Your task to perform on an android device: toggle pop-ups in chrome Image 0: 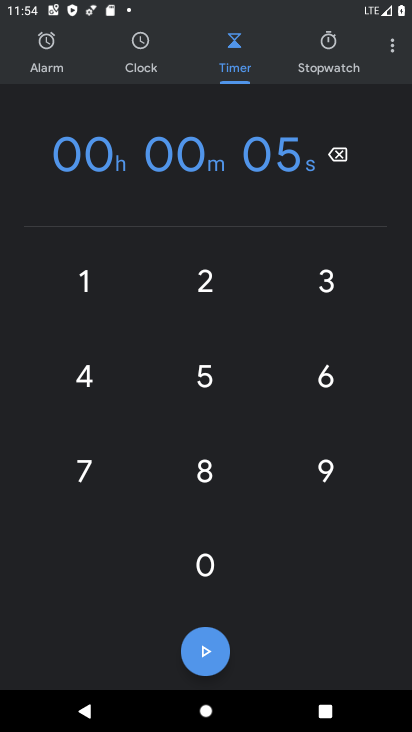
Step 0: press home button
Your task to perform on an android device: toggle pop-ups in chrome Image 1: 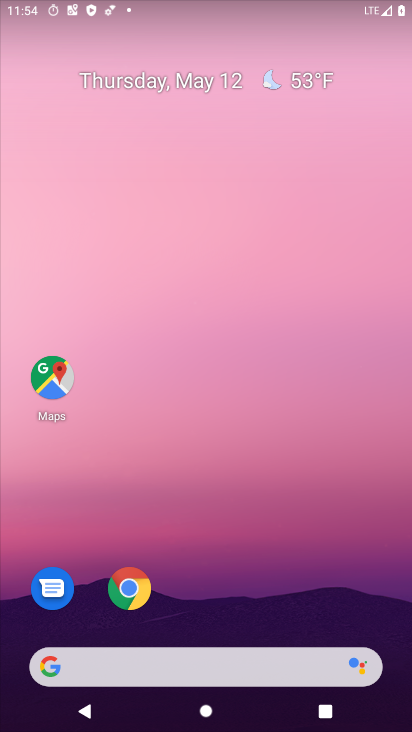
Step 1: click (120, 596)
Your task to perform on an android device: toggle pop-ups in chrome Image 2: 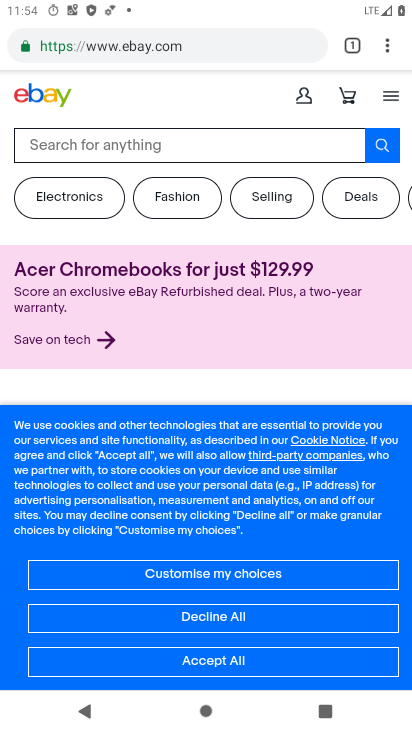
Step 2: click (390, 47)
Your task to perform on an android device: toggle pop-ups in chrome Image 3: 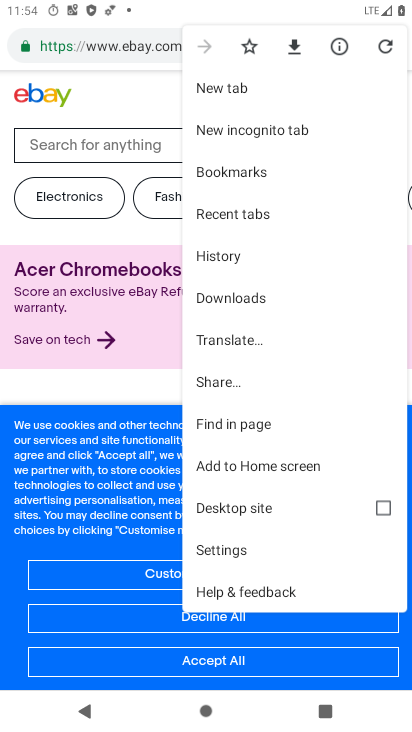
Step 3: click (236, 558)
Your task to perform on an android device: toggle pop-ups in chrome Image 4: 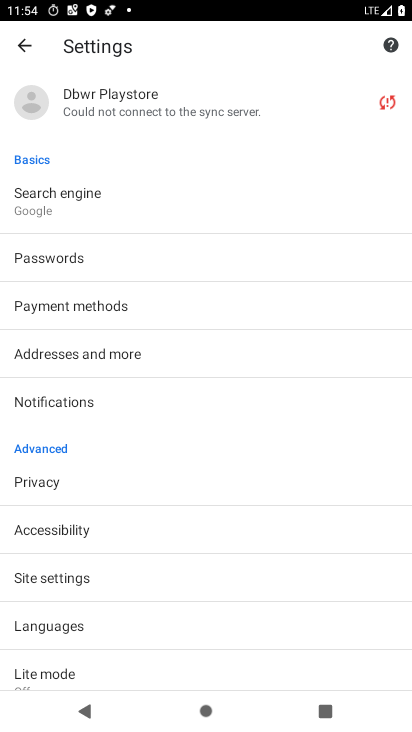
Step 4: drag from (126, 621) to (176, 355)
Your task to perform on an android device: toggle pop-ups in chrome Image 5: 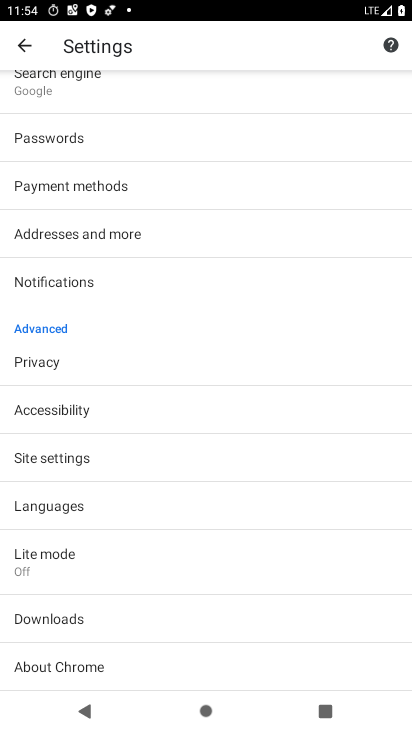
Step 5: click (65, 449)
Your task to perform on an android device: toggle pop-ups in chrome Image 6: 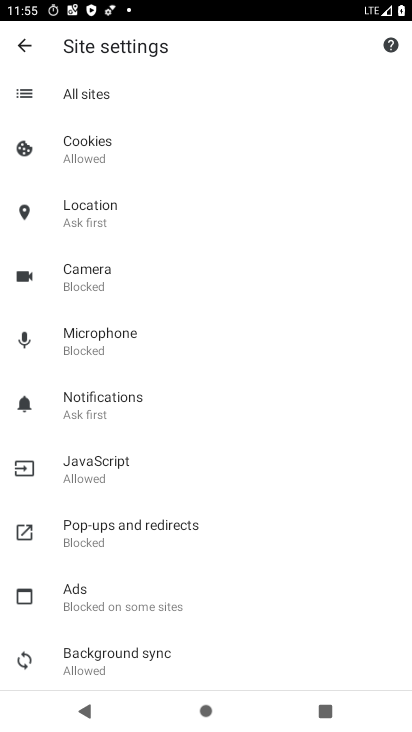
Step 6: click (113, 533)
Your task to perform on an android device: toggle pop-ups in chrome Image 7: 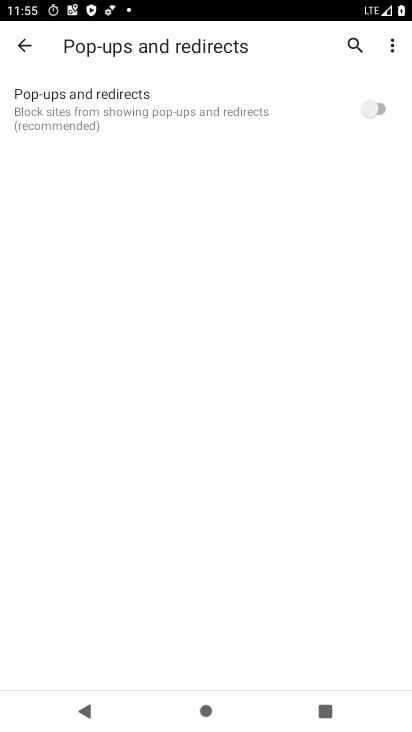
Step 7: click (359, 99)
Your task to perform on an android device: toggle pop-ups in chrome Image 8: 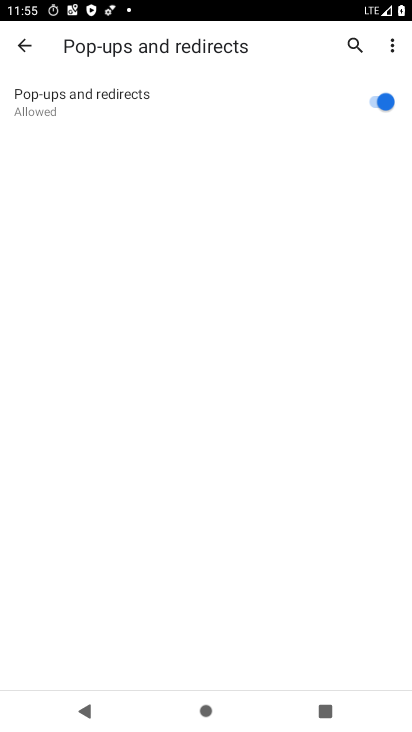
Step 8: task complete